Your task to perform on an android device: Open Yahoo.com Image 0: 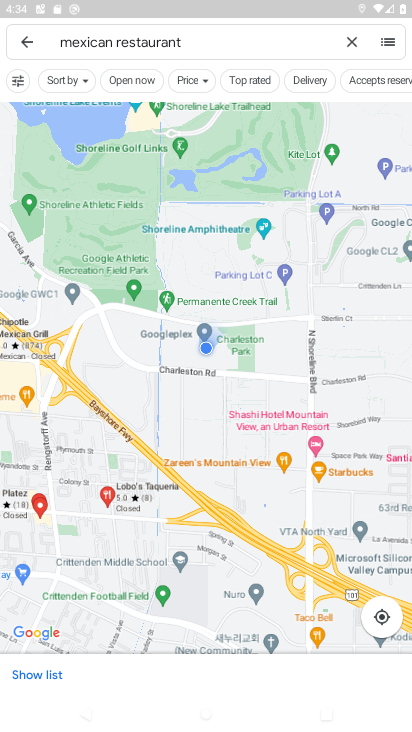
Step 0: press back button
Your task to perform on an android device: Open Yahoo.com Image 1: 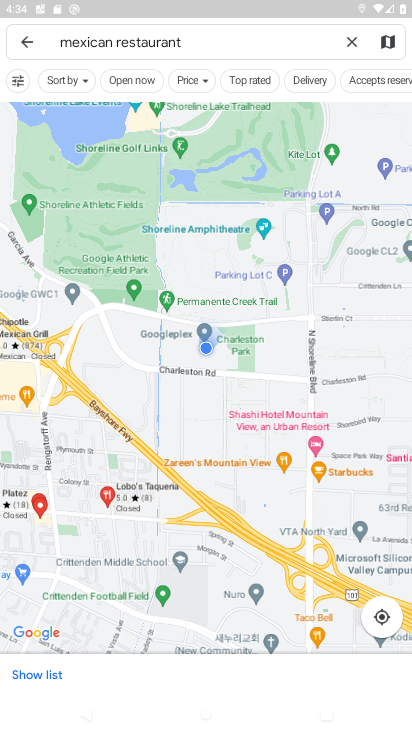
Step 1: press back button
Your task to perform on an android device: Open Yahoo.com Image 2: 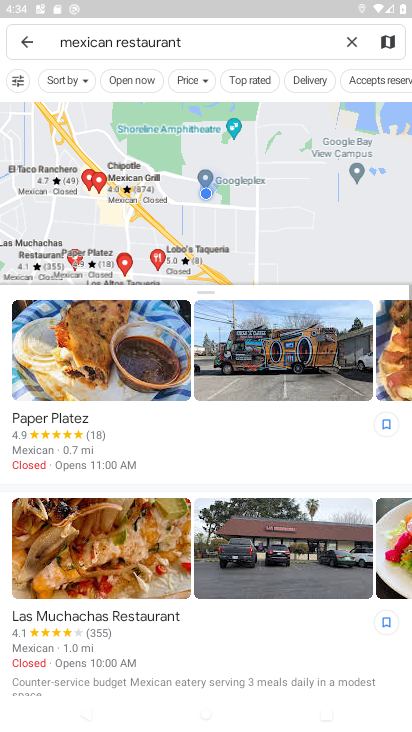
Step 2: press back button
Your task to perform on an android device: Open Yahoo.com Image 3: 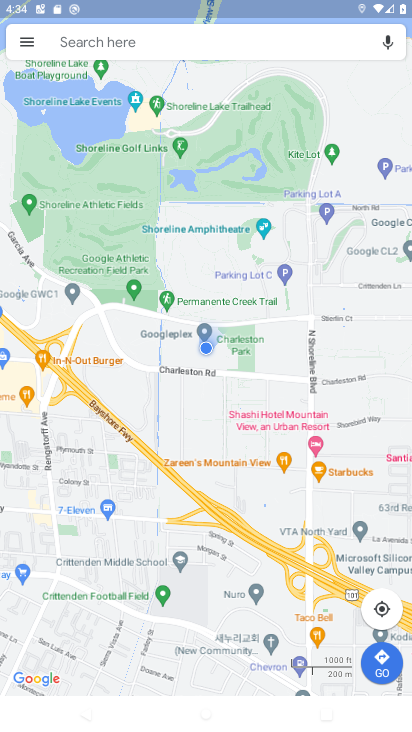
Step 3: click (32, 42)
Your task to perform on an android device: Open Yahoo.com Image 4: 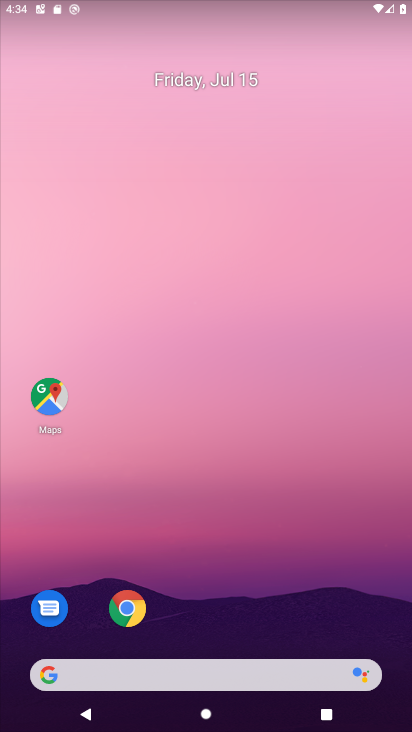
Step 4: drag from (221, 521) to (192, 115)
Your task to perform on an android device: Open Yahoo.com Image 5: 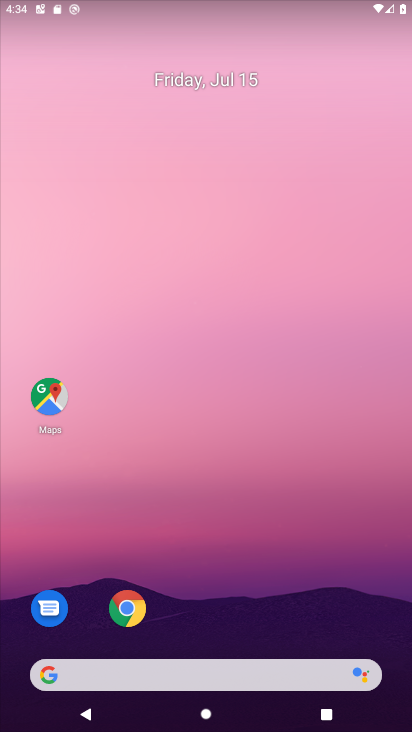
Step 5: drag from (190, 454) to (152, 7)
Your task to perform on an android device: Open Yahoo.com Image 6: 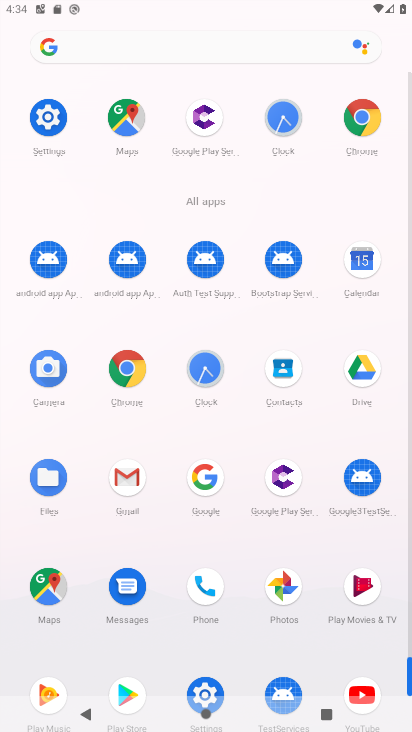
Step 6: drag from (155, 321) to (141, 224)
Your task to perform on an android device: Open Yahoo.com Image 7: 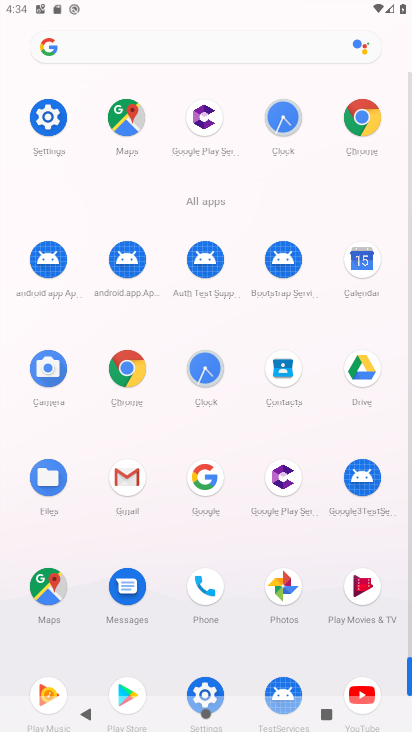
Step 7: click (364, 118)
Your task to perform on an android device: Open Yahoo.com Image 8: 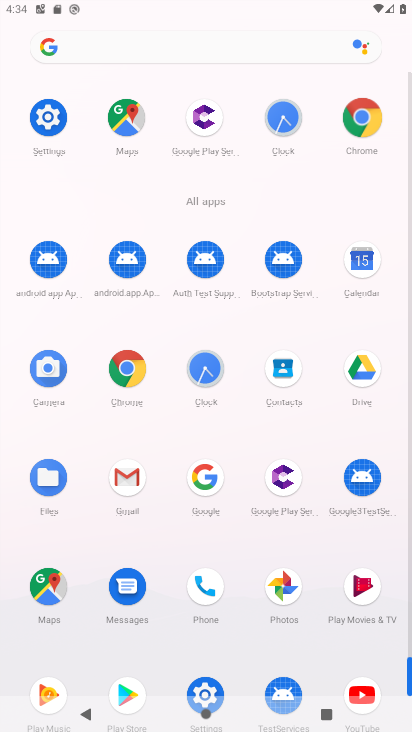
Step 8: click (363, 118)
Your task to perform on an android device: Open Yahoo.com Image 9: 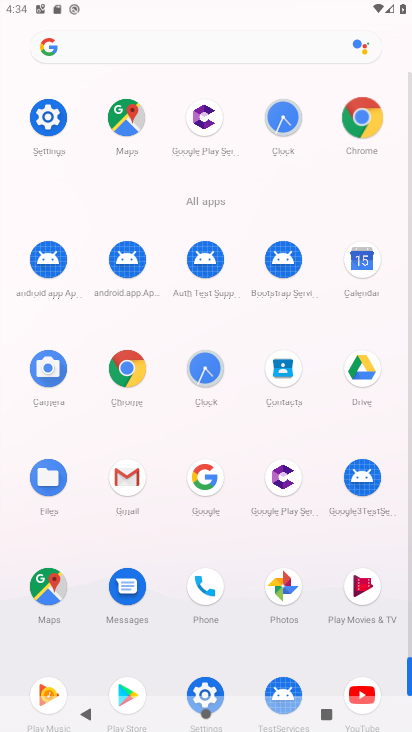
Step 9: click (354, 128)
Your task to perform on an android device: Open Yahoo.com Image 10: 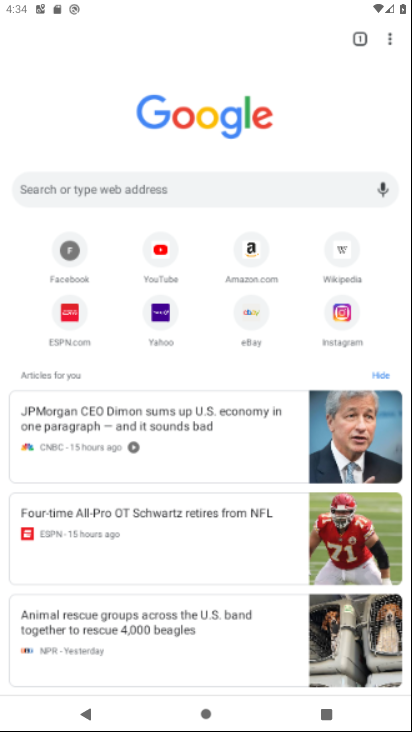
Step 10: click (361, 136)
Your task to perform on an android device: Open Yahoo.com Image 11: 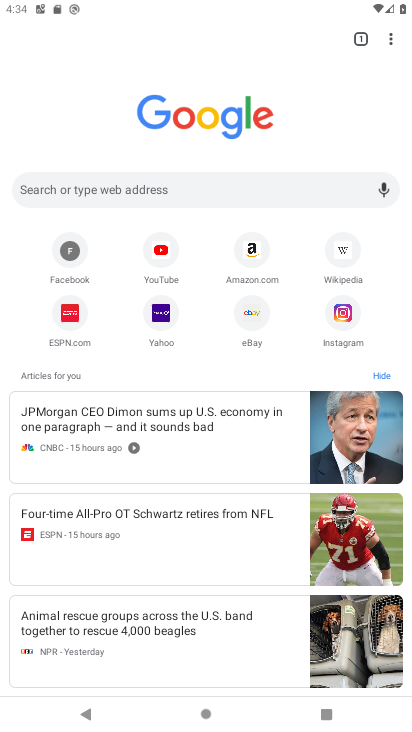
Step 11: click (164, 313)
Your task to perform on an android device: Open Yahoo.com Image 12: 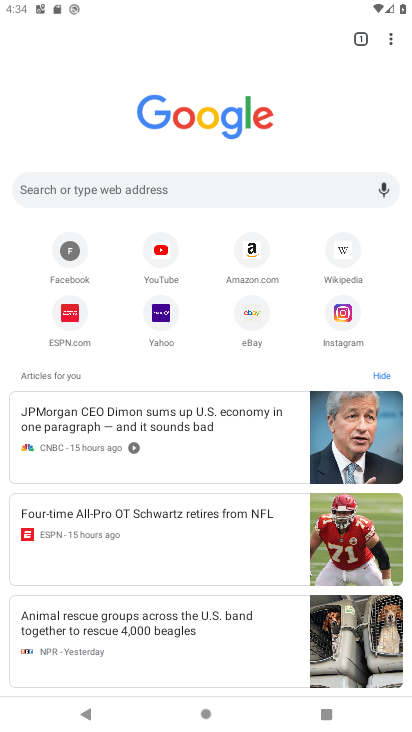
Step 12: click (163, 312)
Your task to perform on an android device: Open Yahoo.com Image 13: 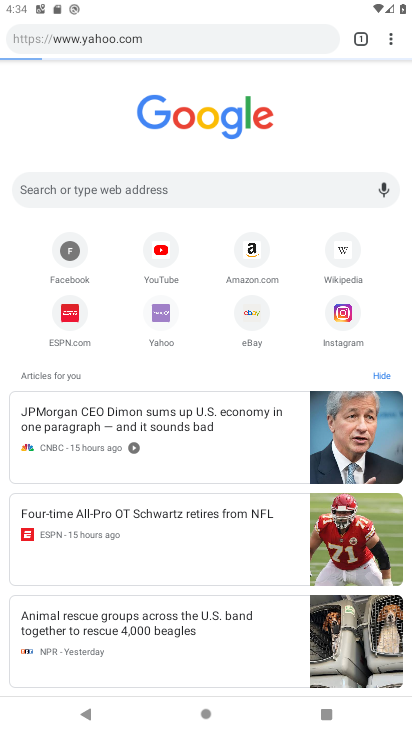
Step 13: click (163, 316)
Your task to perform on an android device: Open Yahoo.com Image 14: 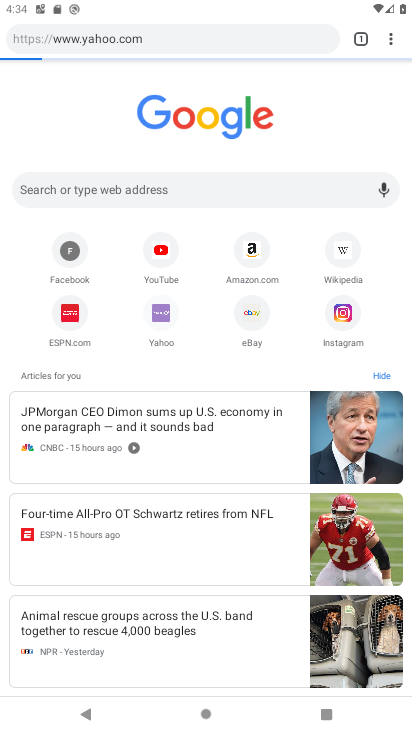
Step 14: click (166, 316)
Your task to perform on an android device: Open Yahoo.com Image 15: 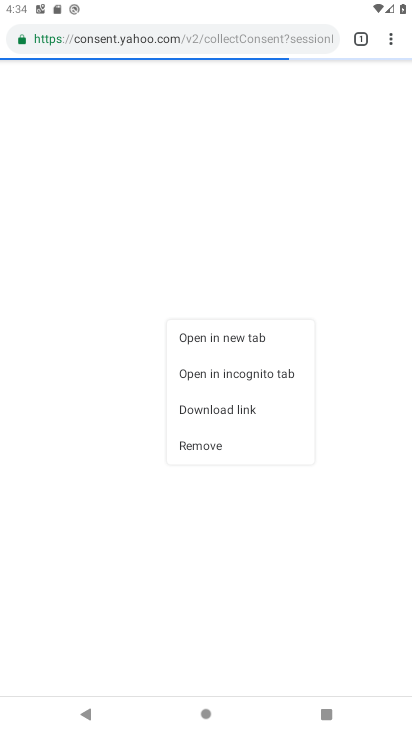
Step 15: click (164, 316)
Your task to perform on an android device: Open Yahoo.com Image 16: 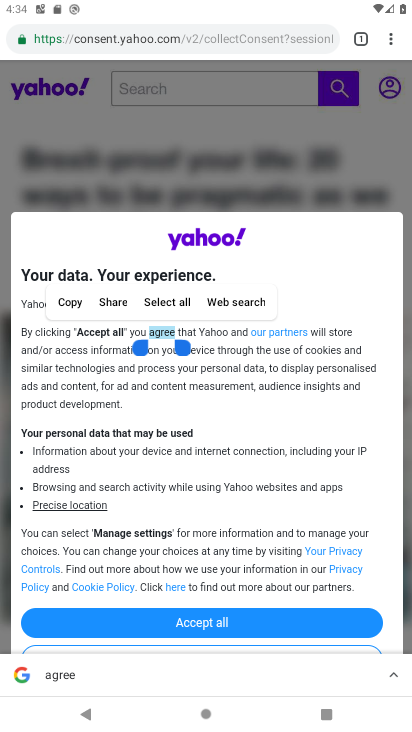
Step 16: task complete